Your task to perform on an android device: turn on improve location accuracy Image 0: 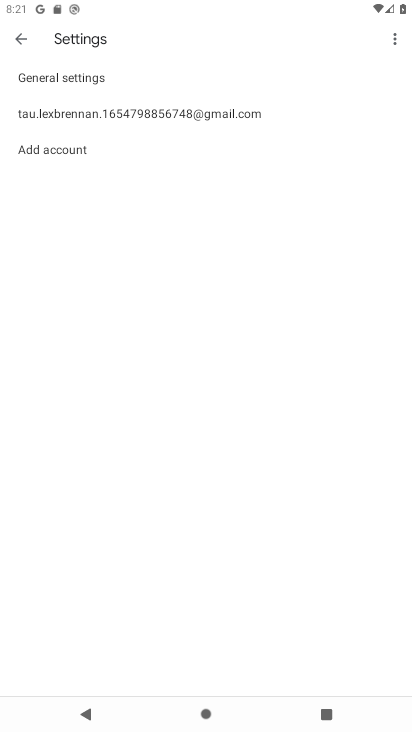
Step 0: press home button
Your task to perform on an android device: turn on improve location accuracy Image 1: 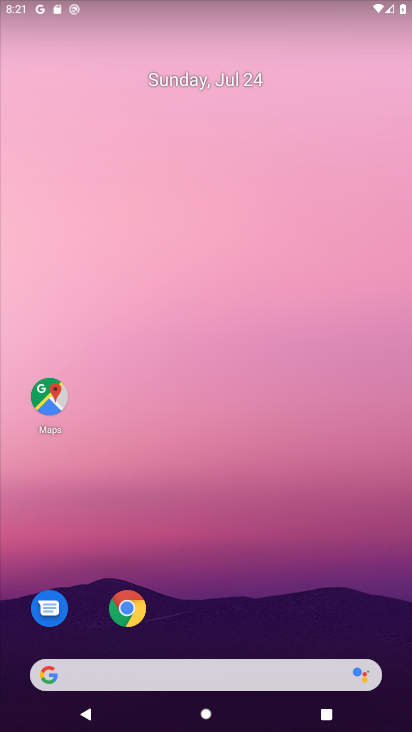
Step 1: drag from (226, 309) to (196, 126)
Your task to perform on an android device: turn on improve location accuracy Image 2: 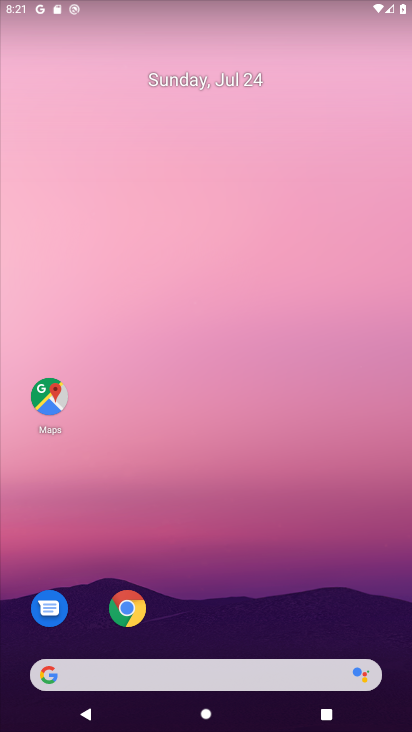
Step 2: drag from (323, 634) to (319, 84)
Your task to perform on an android device: turn on improve location accuracy Image 3: 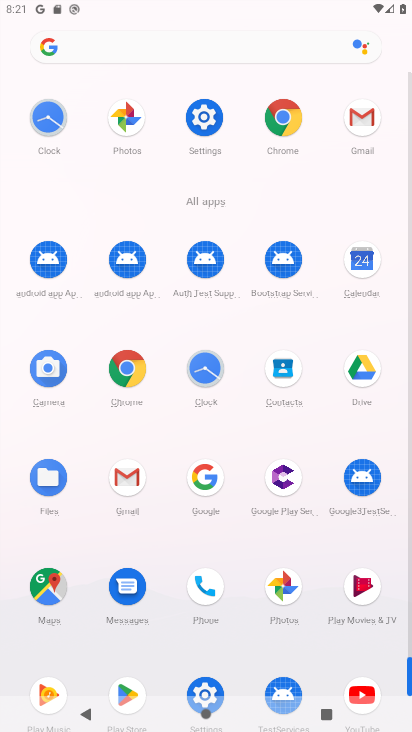
Step 3: click (207, 115)
Your task to perform on an android device: turn on improve location accuracy Image 4: 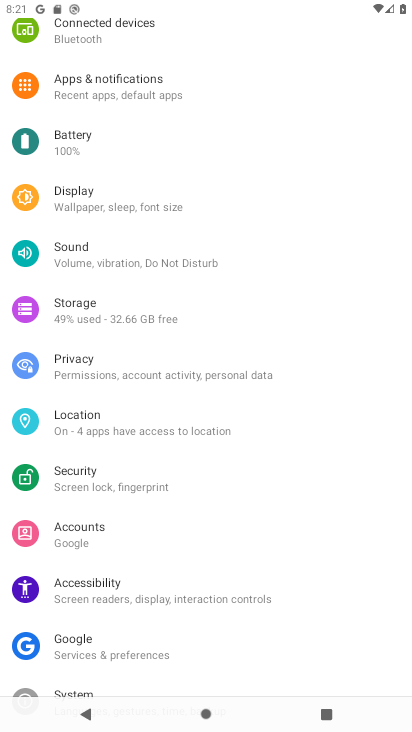
Step 4: click (166, 426)
Your task to perform on an android device: turn on improve location accuracy Image 5: 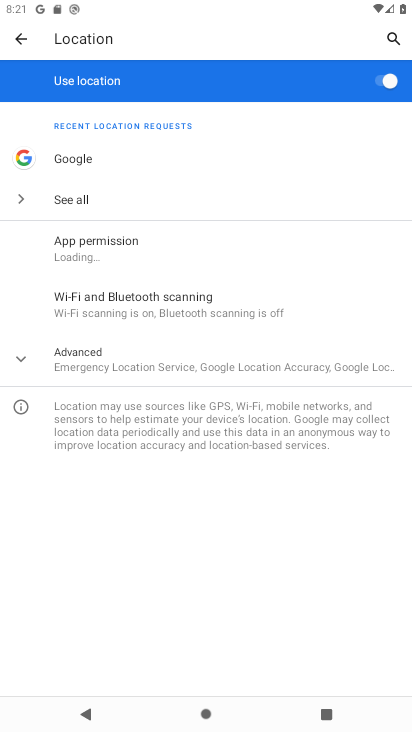
Step 5: click (143, 355)
Your task to perform on an android device: turn on improve location accuracy Image 6: 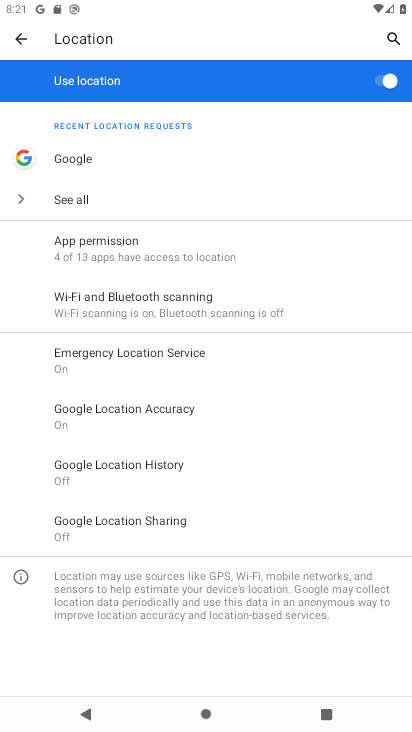
Step 6: click (166, 410)
Your task to perform on an android device: turn on improve location accuracy Image 7: 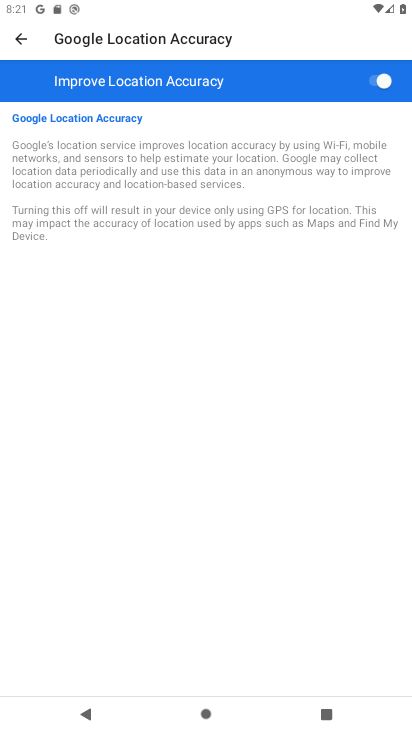
Step 7: task complete